Your task to perform on an android device: open sync settings in chrome Image 0: 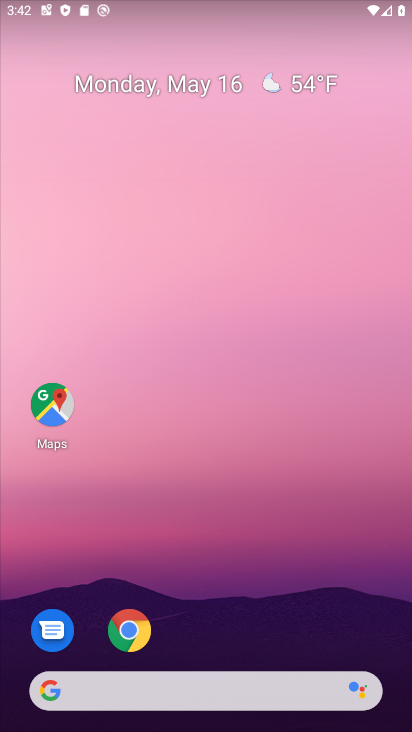
Step 0: click (143, 620)
Your task to perform on an android device: open sync settings in chrome Image 1: 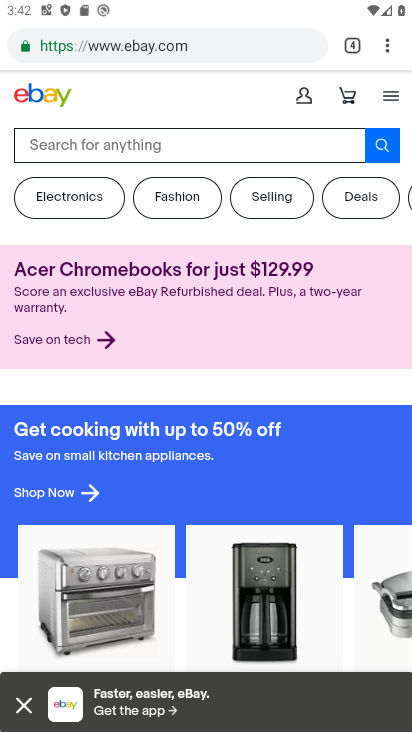
Step 1: click (383, 48)
Your task to perform on an android device: open sync settings in chrome Image 2: 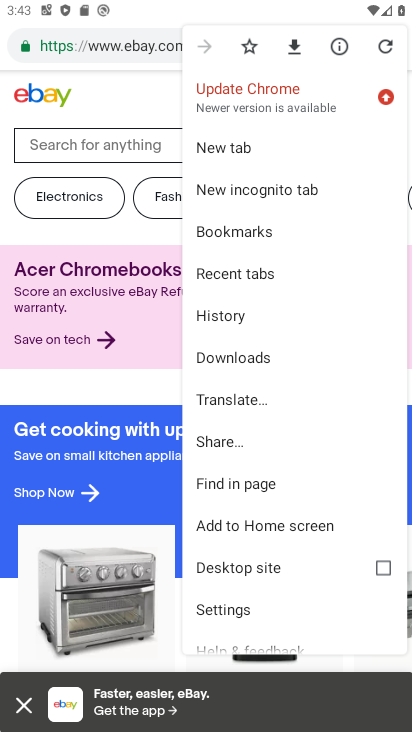
Step 2: click (251, 615)
Your task to perform on an android device: open sync settings in chrome Image 3: 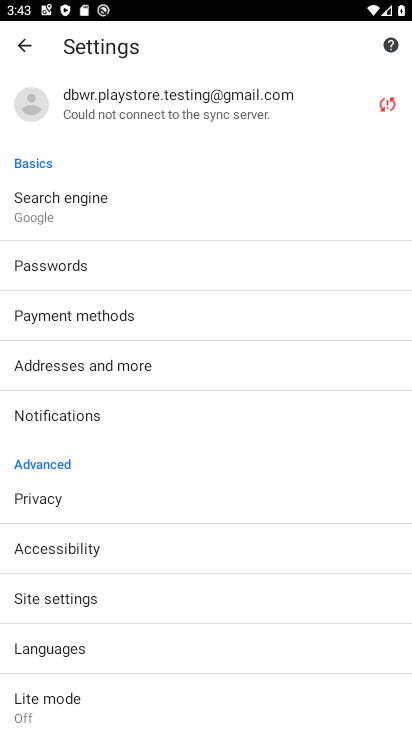
Step 3: click (207, 100)
Your task to perform on an android device: open sync settings in chrome Image 4: 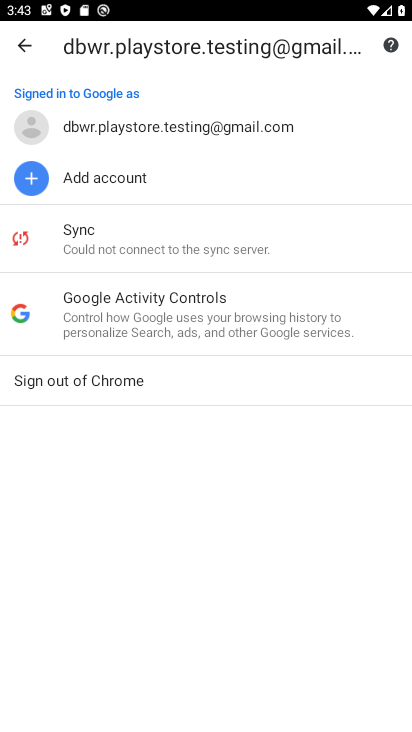
Step 4: click (218, 239)
Your task to perform on an android device: open sync settings in chrome Image 5: 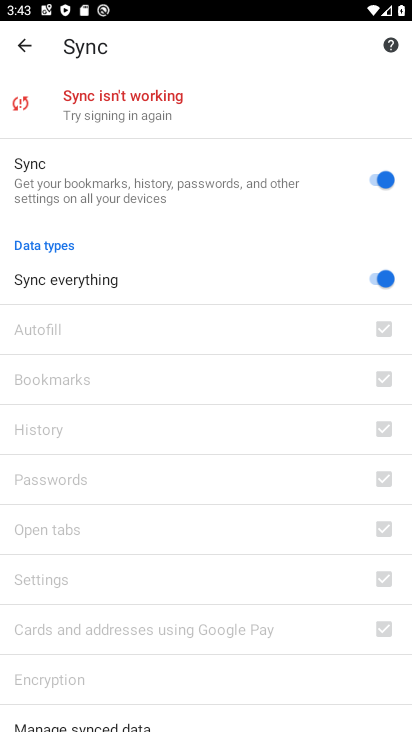
Step 5: task complete